Your task to perform on an android device: open app "Duolingo: language lessons" (install if not already installed) Image 0: 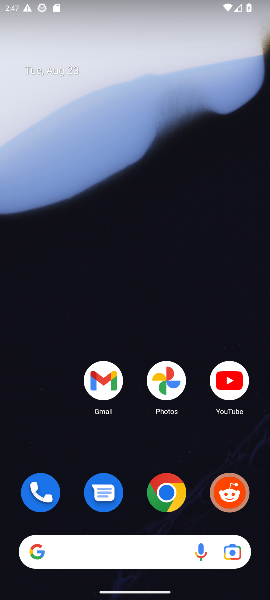
Step 0: drag from (141, 522) to (85, 17)
Your task to perform on an android device: open app "Duolingo: language lessons" (install if not already installed) Image 1: 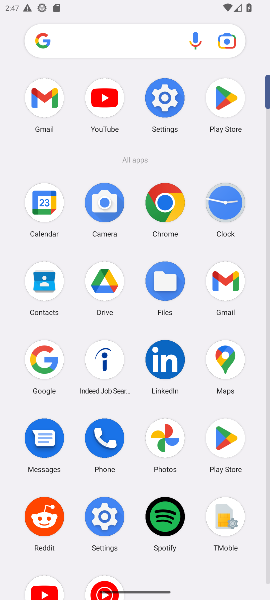
Step 1: drag from (154, 159) to (2, 262)
Your task to perform on an android device: open app "Duolingo: language lessons" (install if not already installed) Image 2: 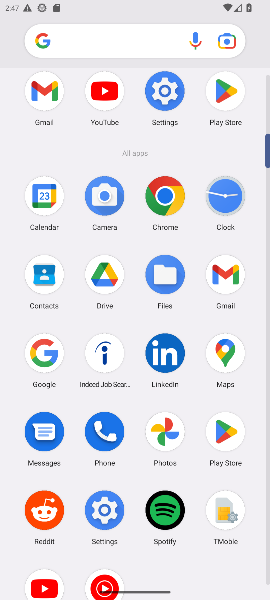
Step 2: drag from (230, 107) to (68, 228)
Your task to perform on an android device: open app "Duolingo: language lessons" (install if not already installed) Image 3: 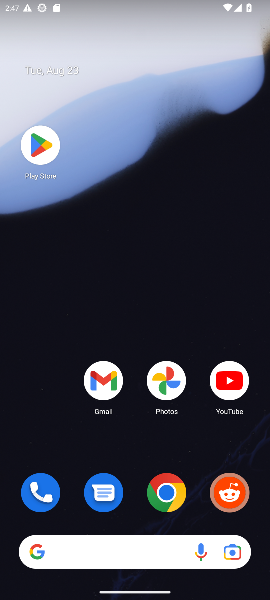
Step 3: click (33, 156)
Your task to perform on an android device: open app "Duolingo: language lessons" (install if not already installed) Image 4: 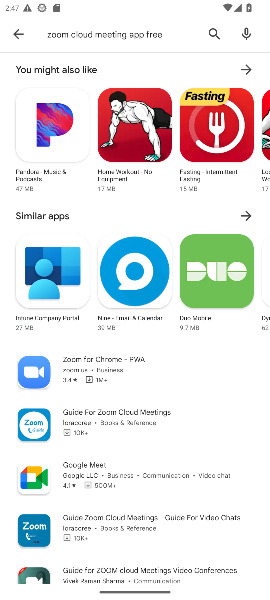
Step 4: click (220, 41)
Your task to perform on an android device: open app "Duolingo: language lessons" (install if not already installed) Image 5: 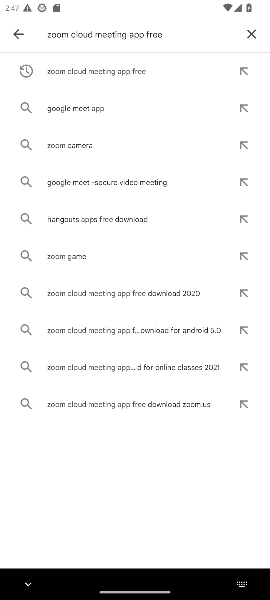
Step 5: click (240, 33)
Your task to perform on an android device: open app "Duolingo: language lessons" (install if not already installed) Image 6: 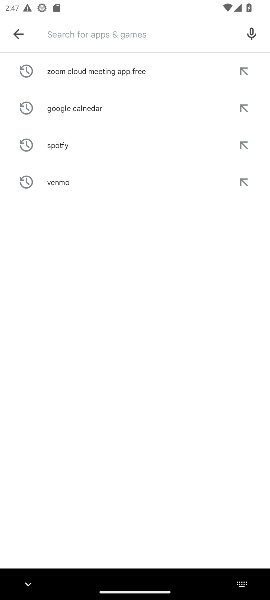
Step 6: type "duoliingo"
Your task to perform on an android device: open app "Duolingo: language lessons" (install if not already installed) Image 7: 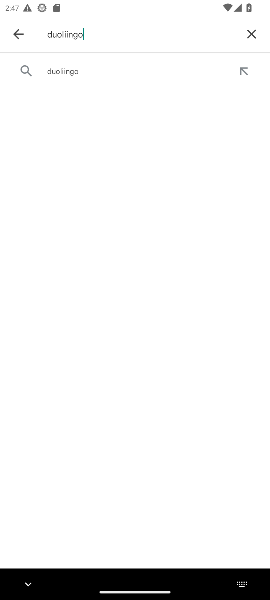
Step 7: click (105, 66)
Your task to perform on an android device: open app "Duolingo: language lessons" (install if not already installed) Image 8: 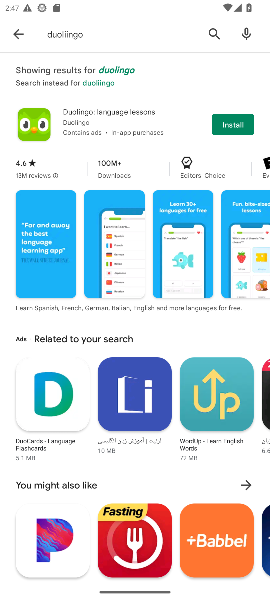
Step 8: click (241, 115)
Your task to perform on an android device: open app "Duolingo: language lessons" (install if not already installed) Image 9: 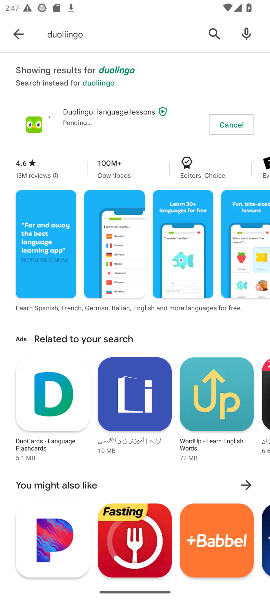
Step 9: task complete